Your task to perform on an android device: find snoozed emails in the gmail app Image 0: 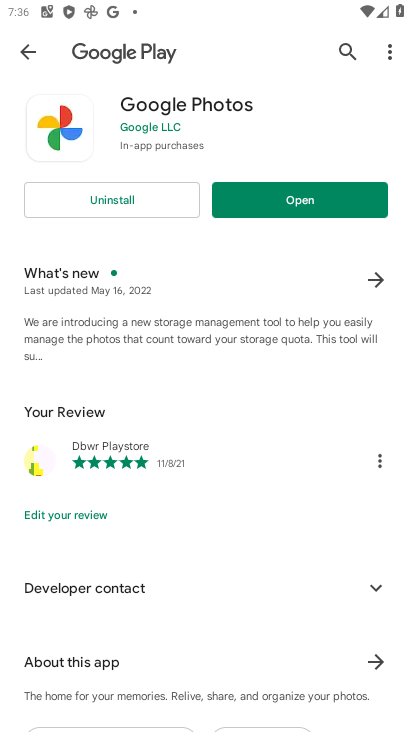
Step 0: press home button
Your task to perform on an android device: find snoozed emails in the gmail app Image 1: 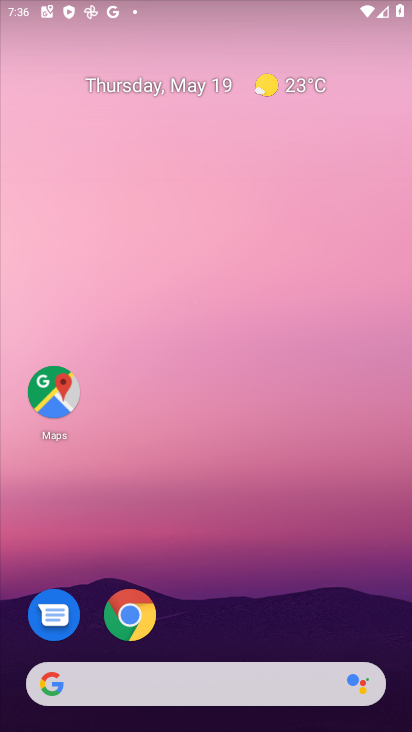
Step 1: drag from (357, 614) to (268, 69)
Your task to perform on an android device: find snoozed emails in the gmail app Image 2: 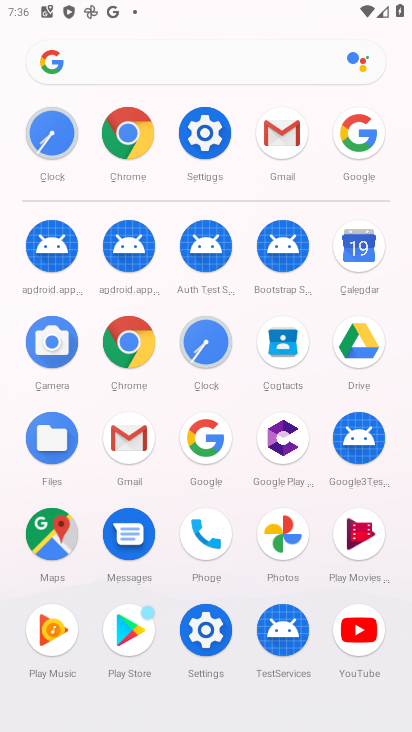
Step 2: click (144, 444)
Your task to perform on an android device: find snoozed emails in the gmail app Image 3: 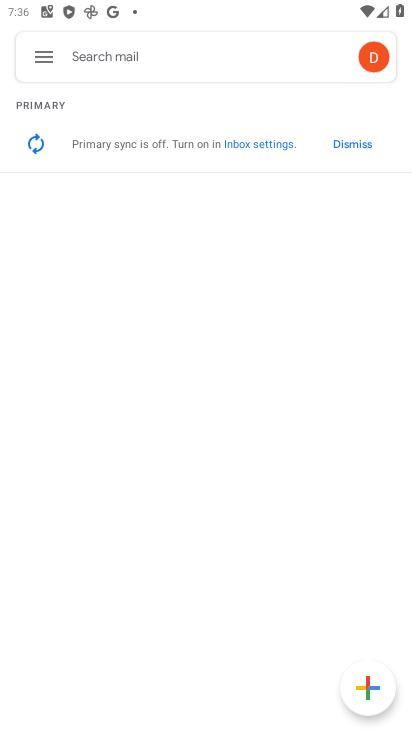
Step 3: click (46, 56)
Your task to perform on an android device: find snoozed emails in the gmail app Image 4: 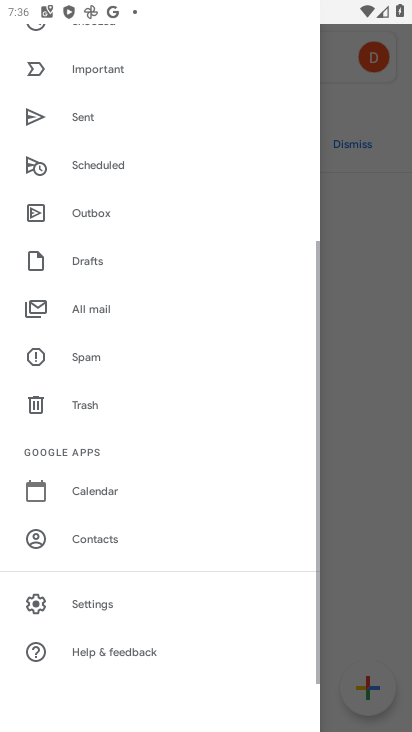
Step 4: drag from (85, 97) to (134, 703)
Your task to perform on an android device: find snoozed emails in the gmail app Image 5: 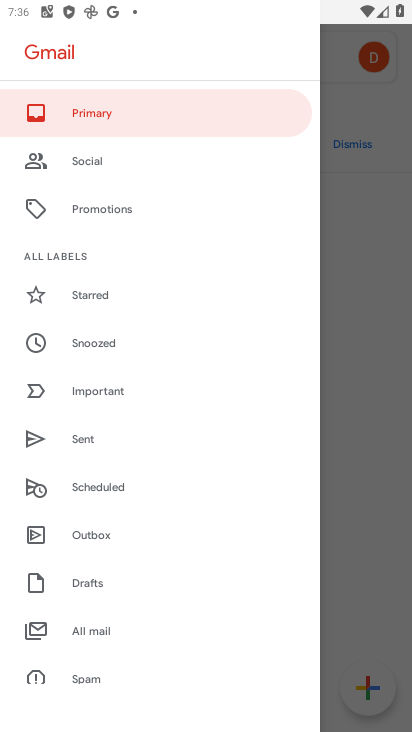
Step 5: click (132, 353)
Your task to perform on an android device: find snoozed emails in the gmail app Image 6: 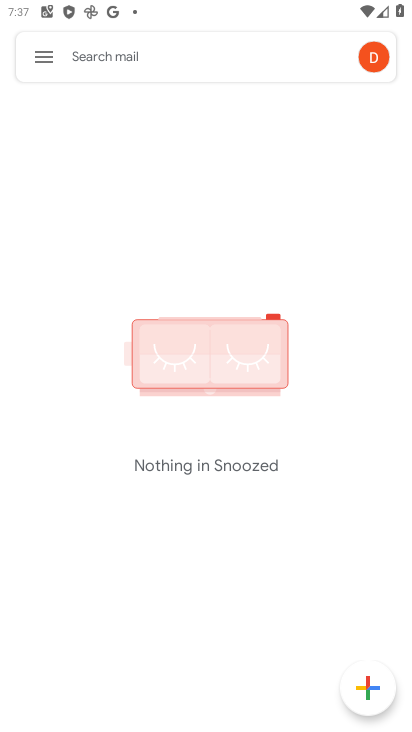
Step 6: task complete